Your task to perform on an android device: Do I have any events today? Image 0: 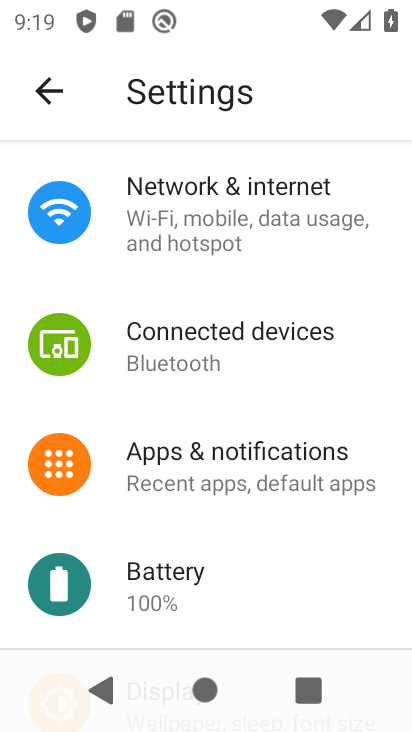
Step 0: press home button
Your task to perform on an android device: Do I have any events today? Image 1: 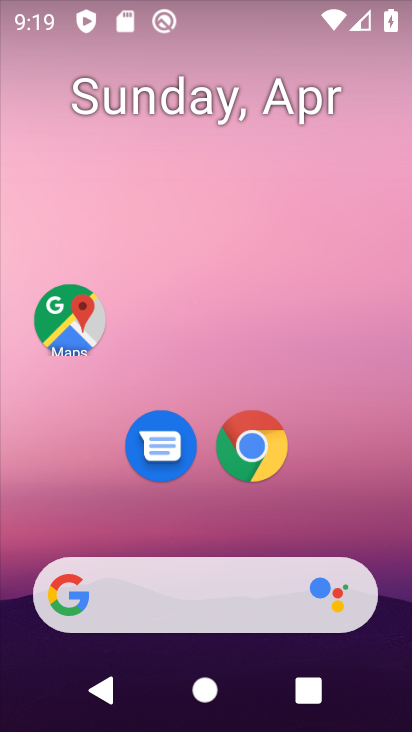
Step 1: drag from (215, 518) to (217, 221)
Your task to perform on an android device: Do I have any events today? Image 2: 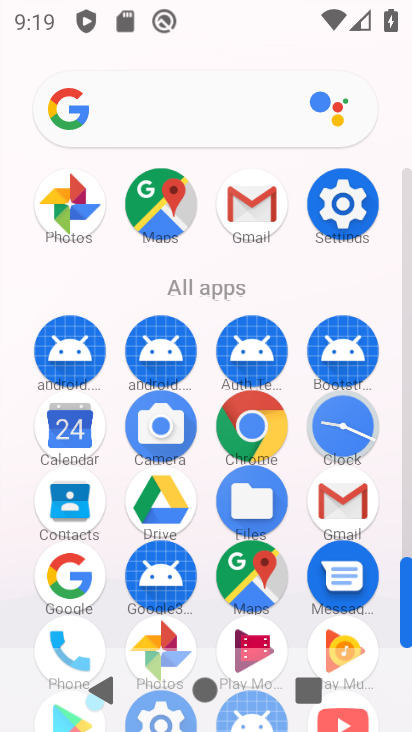
Step 2: click (50, 431)
Your task to perform on an android device: Do I have any events today? Image 3: 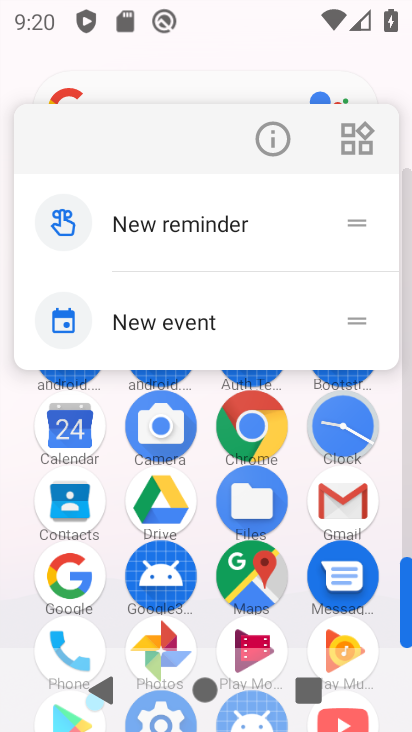
Step 3: click (275, 140)
Your task to perform on an android device: Do I have any events today? Image 4: 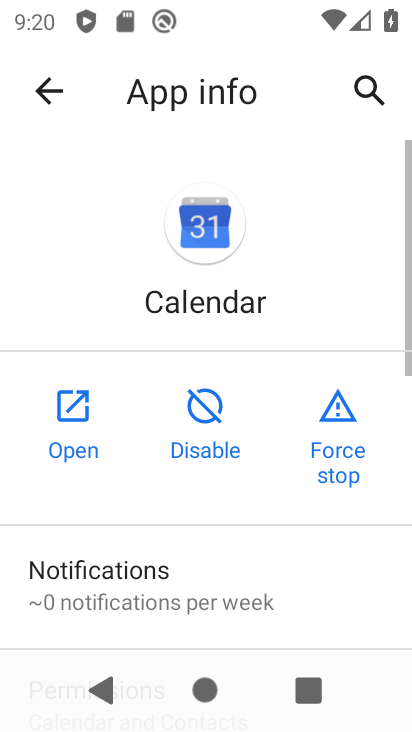
Step 4: click (66, 404)
Your task to perform on an android device: Do I have any events today? Image 5: 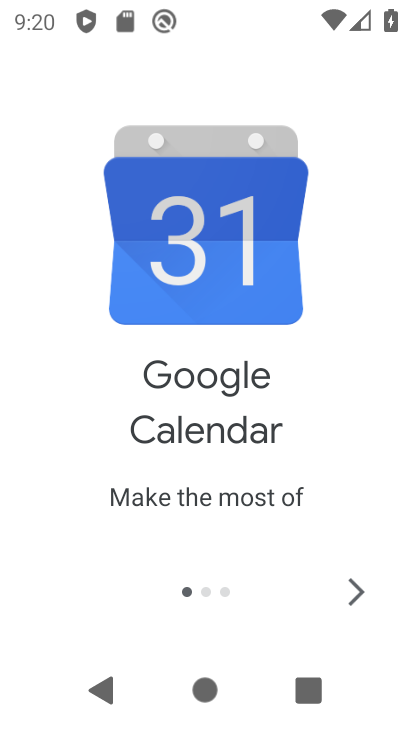
Step 5: click (342, 594)
Your task to perform on an android device: Do I have any events today? Image 6: 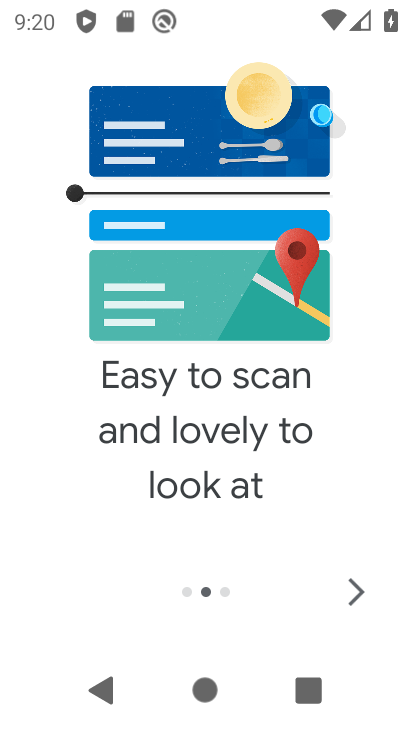
Step 6: click (343, 585)
Your task to perform on an android device: Do I have any events today? Image 7: 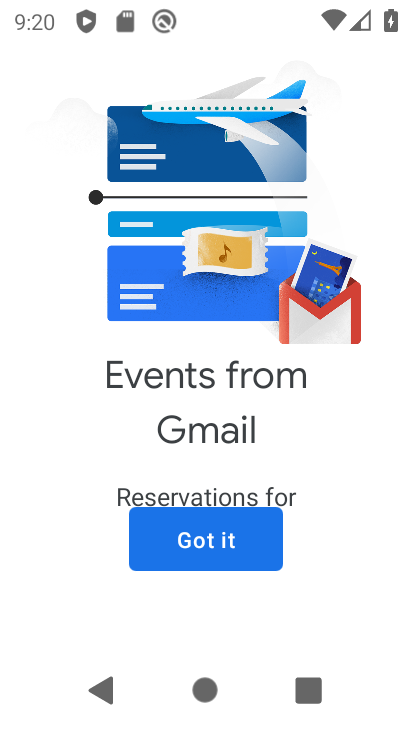
Step 7: click (218, 543)
Your task to perform on an android device: Do I have any events today? Image 8: 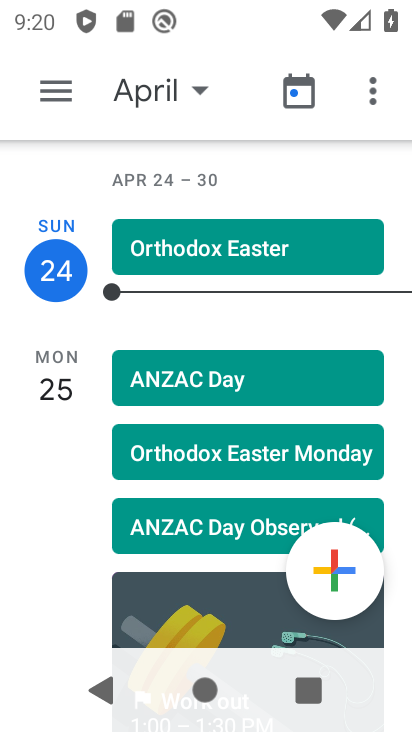
Step 8: task complete